Your task to perform on an android device: choose inbox layout in the gmail app Image 0: 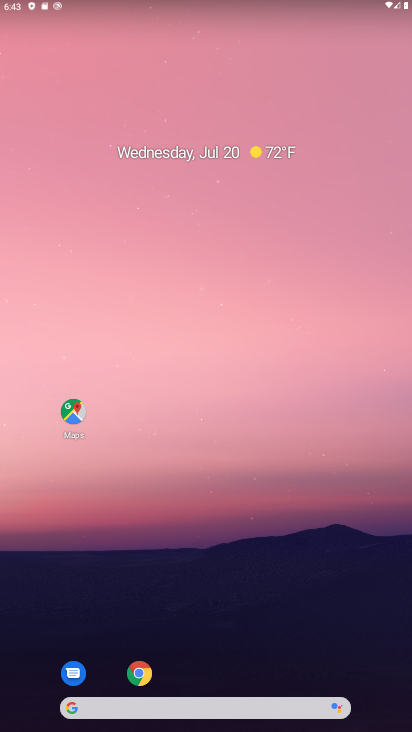
Step 0: drag from (368, 597) to (307, 42)
Your task to perform on an android device: choose inbox layout in the gmail app Image 1: 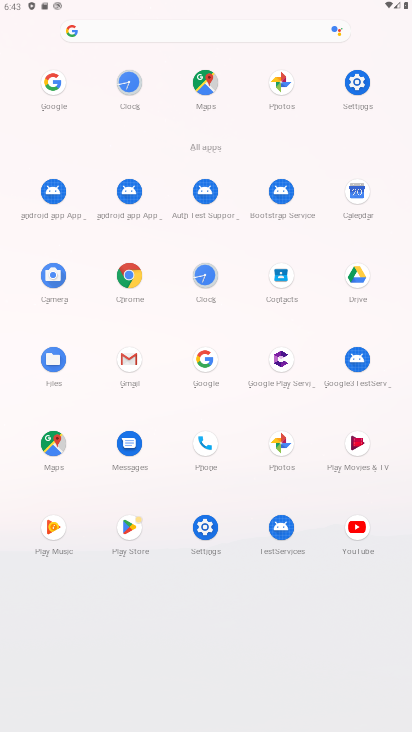
Step 1: click (117, 368)
Your task to perform on an android device: choose inbox layout in the gmail app Image 2: 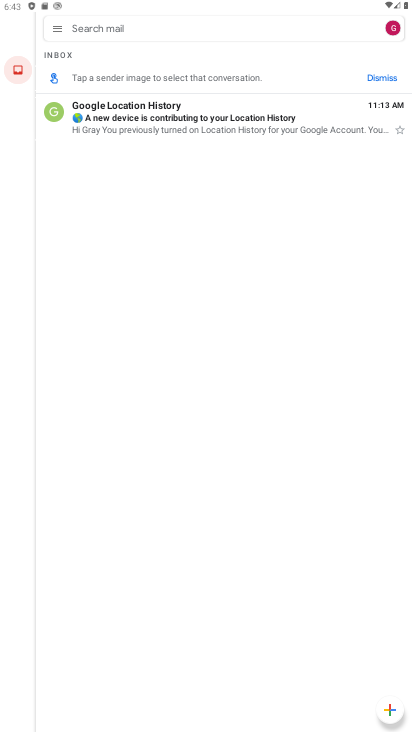
Step 2: task complete